Your task to perform on an android device: open app "Chime – Mobile Banking" Image 0: 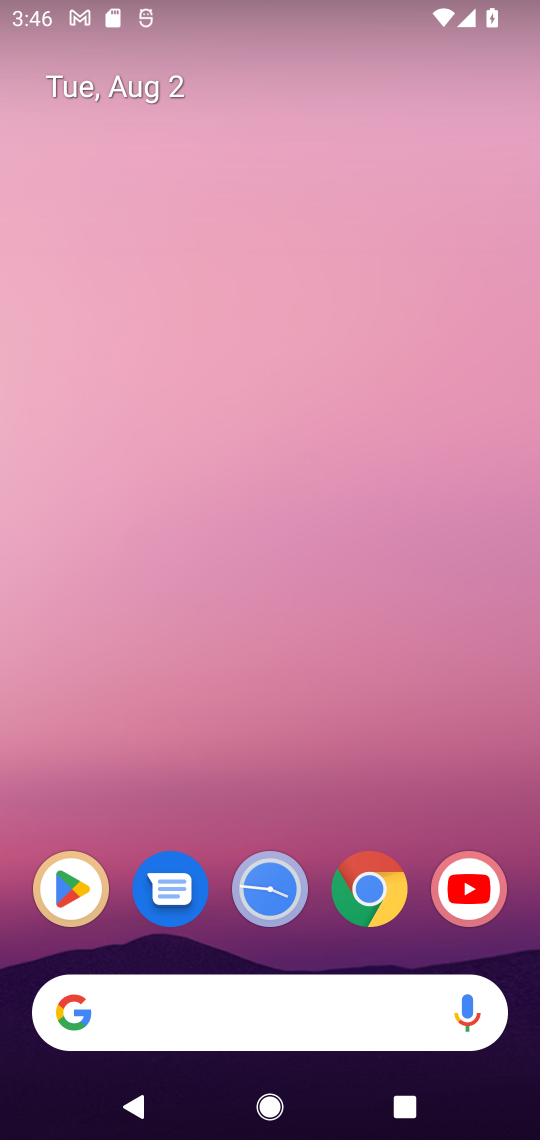
Step 0: press home button
Your task to perform on an android device: open app "Chime – Mobile Banking" Image 1: 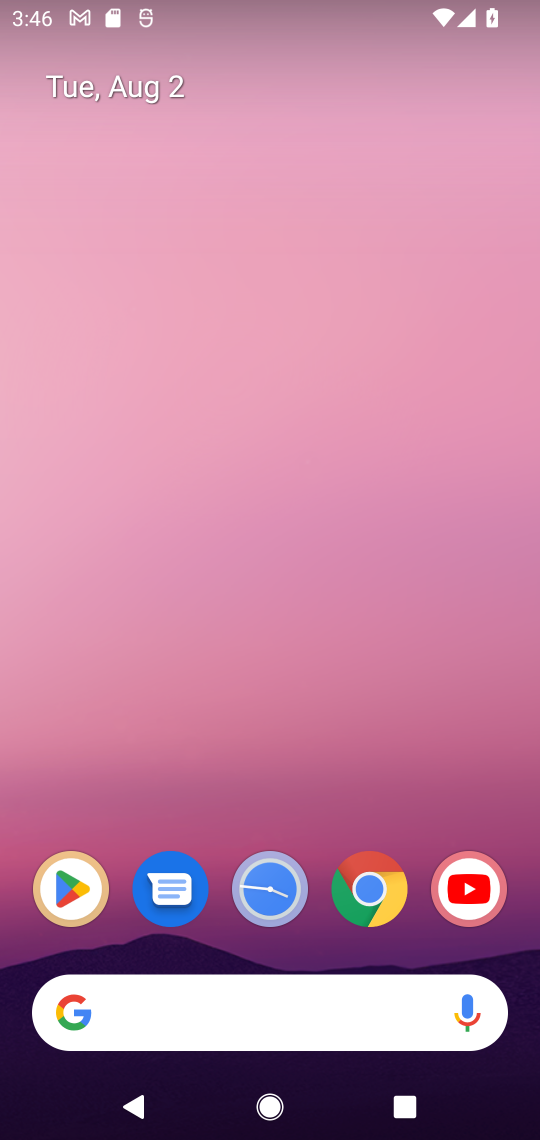
Step 1: drag from (362, 698) to (394, 169)
Your task to perform on an android device: open app "Chime – Mobile Banking" Image 2: 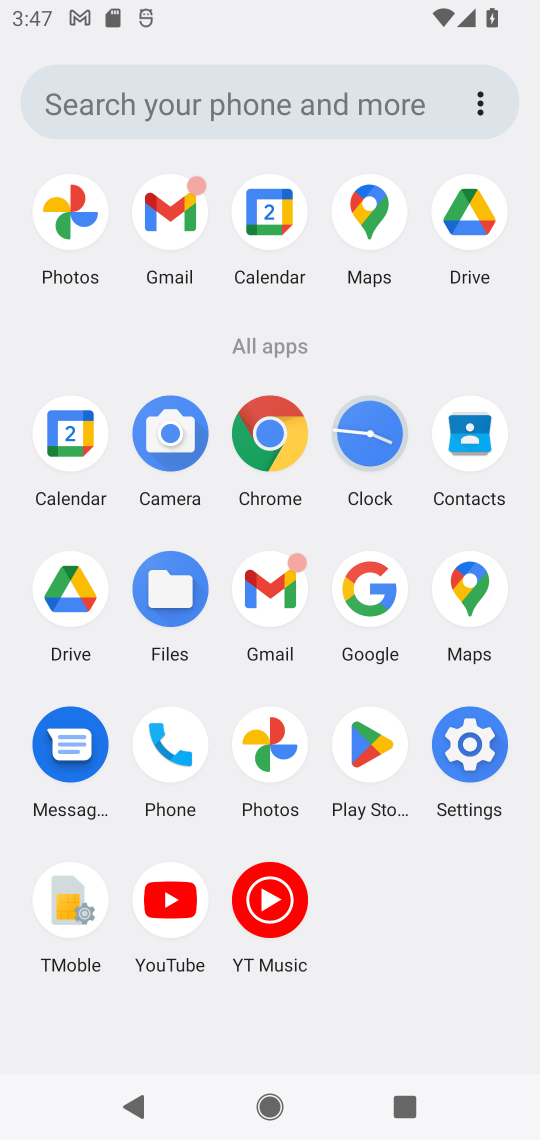
Step 2: click (372, 769)
Your task to perform on an android device: open app "Chime – Mobile Banking" Image 3: 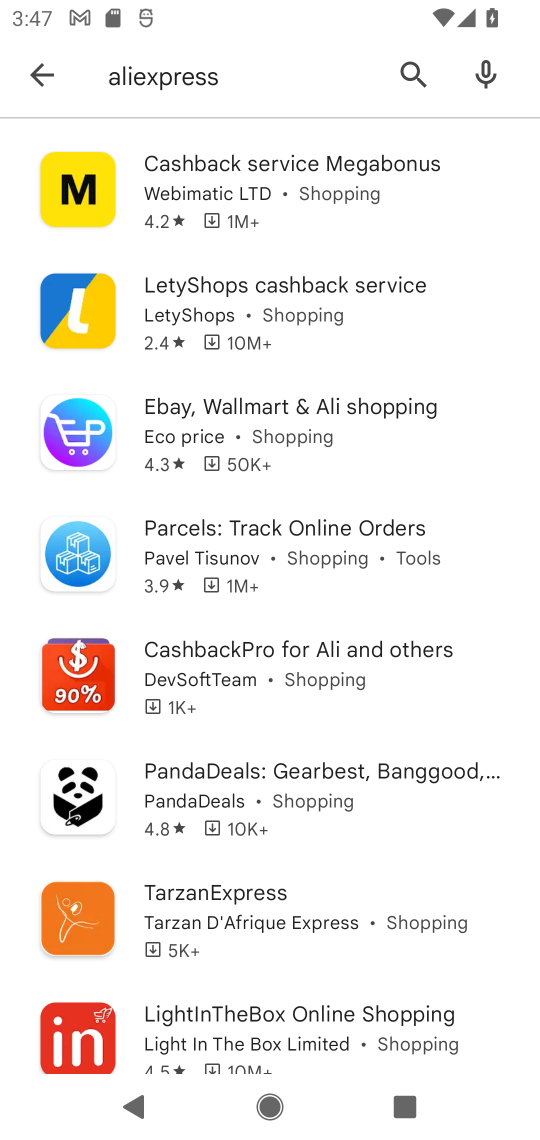
Step 3: click (414, 70)
Your task to perform on an android device: open app "Chime – Mobile Banking" Image 4: 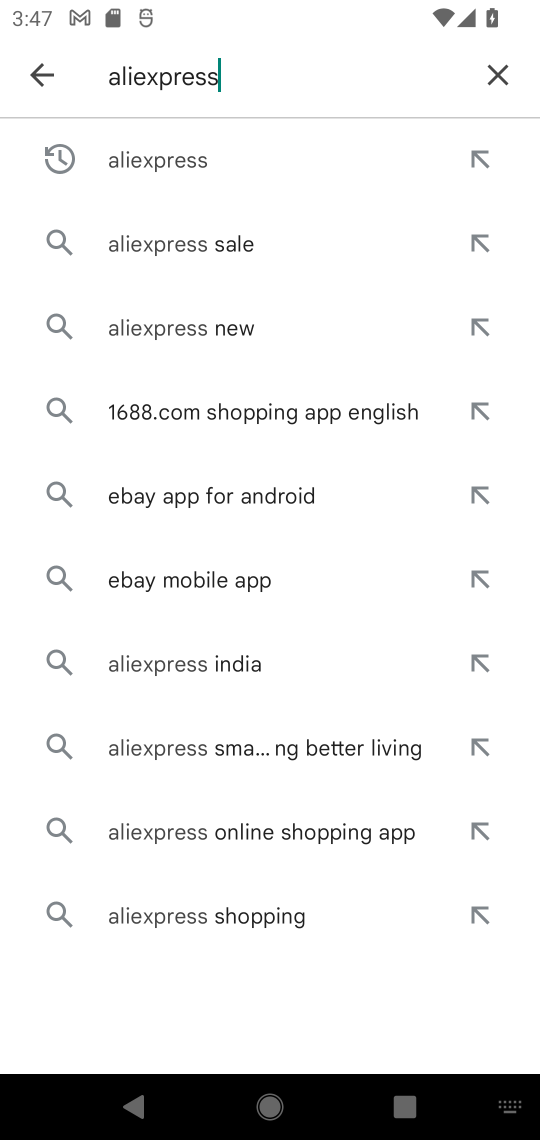
Step 4: click (508, 80)
Your task to perform on an android device: open app "Chime – Mobile Banking" Image 5: 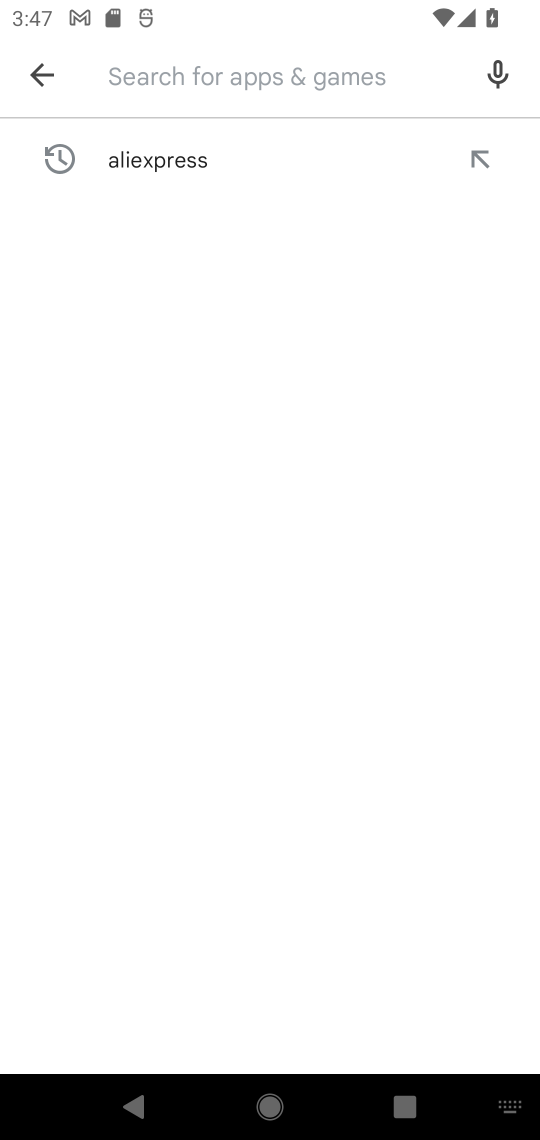
Step 5: type "chime mobile banking"
Your task to perform on an android device: open app "Chime – Mobile Banking" Image 6: 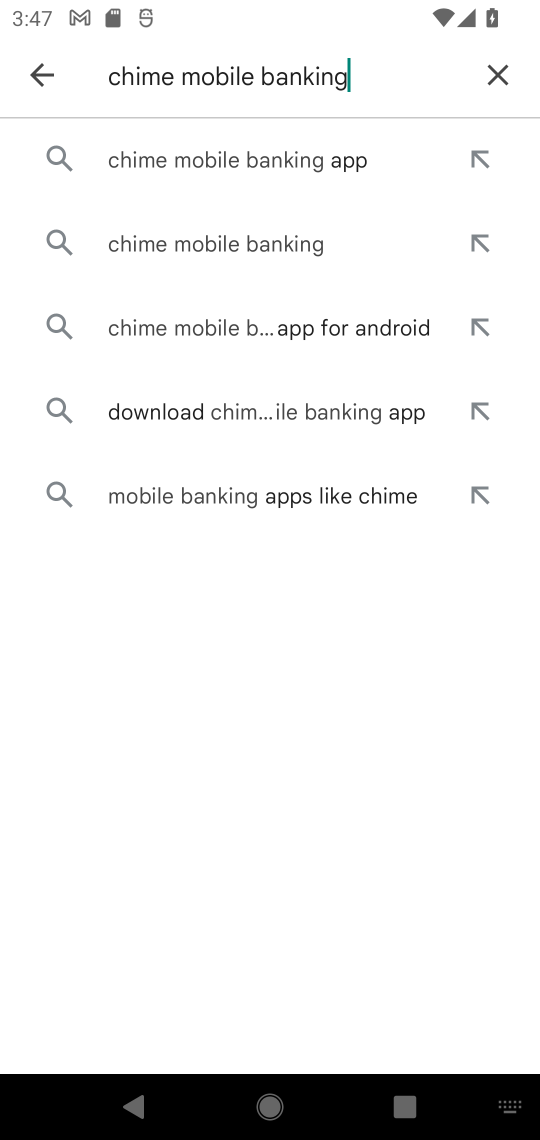
Step 6: click (289, 169)
Your task to perform on an android device: open app "Chime – Mobile Banking" Image 7: 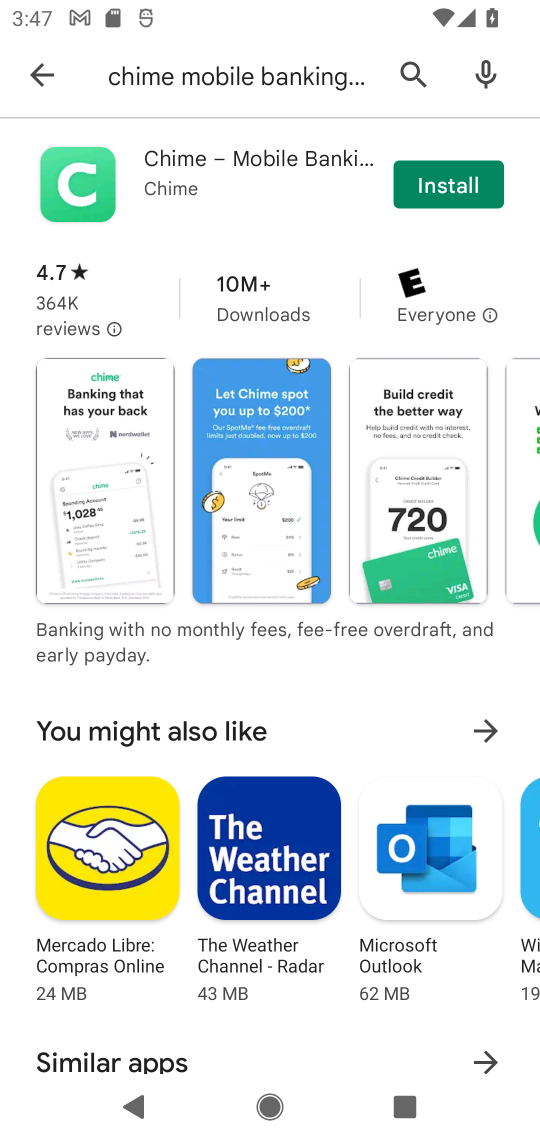
Step 7: task complete